Your task to perform on an android device: Go to Google maps Image 0: 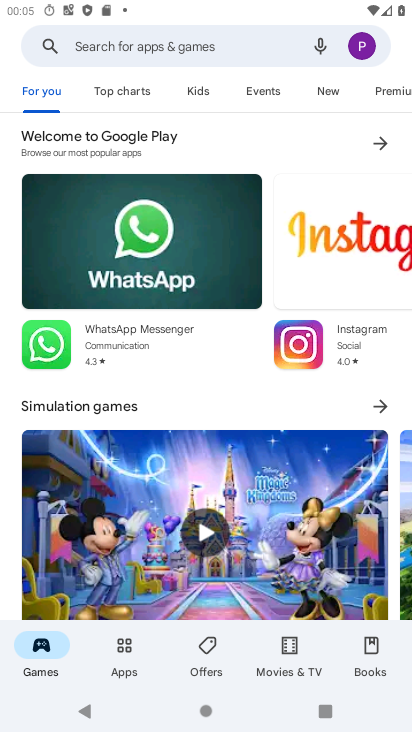
Step 0: press home button
Your task to perform on an android device: Go to Google maps Image 1: 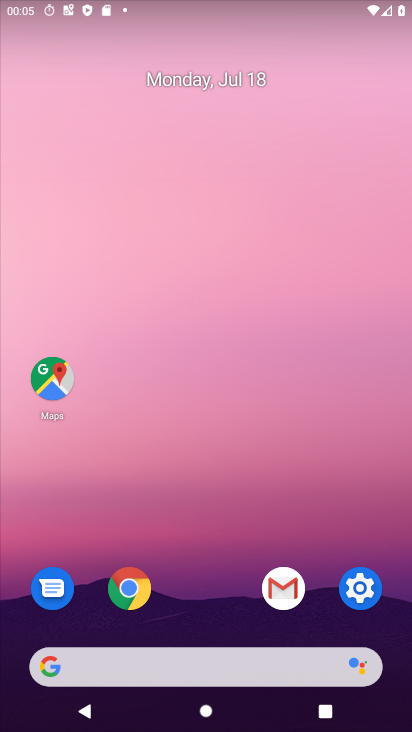
Step 1: click (33, 378)
Your task to perform on an android device: Go to Google maps Image 2: 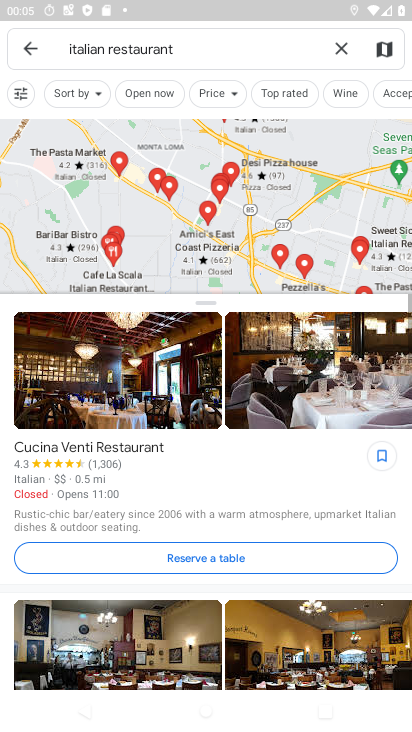
Step 2: click (29, 56)
Your task to perform on an android device: Go to Google maps Image 3: 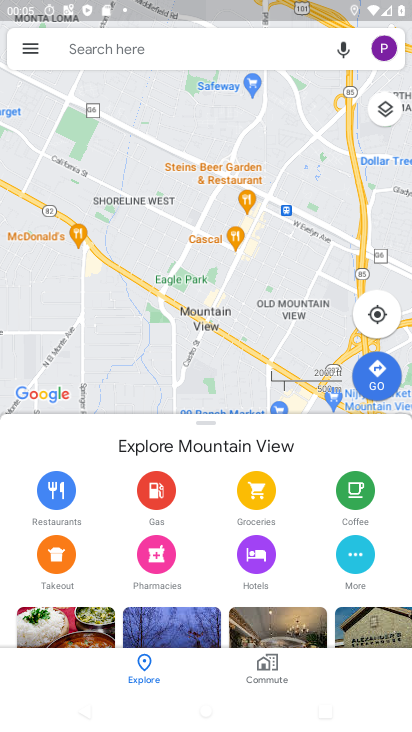
Step 3: click (378, 318)
Your task to perform on an android device: Go to Google maps Image 4: 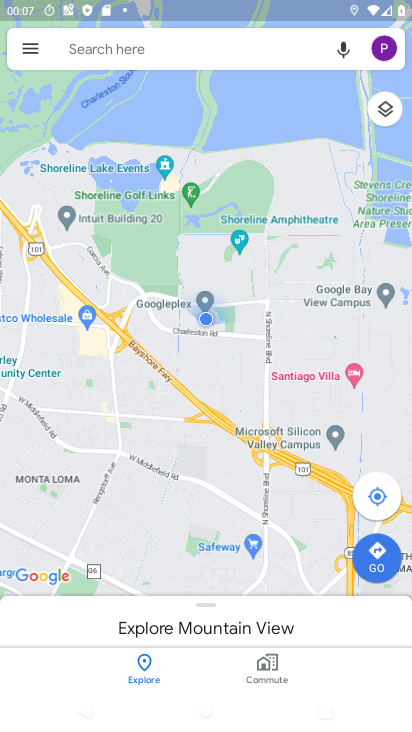
Step 4: task complete